Your task to perform on an android device: Is it going to rain tomorrow? Image 0: 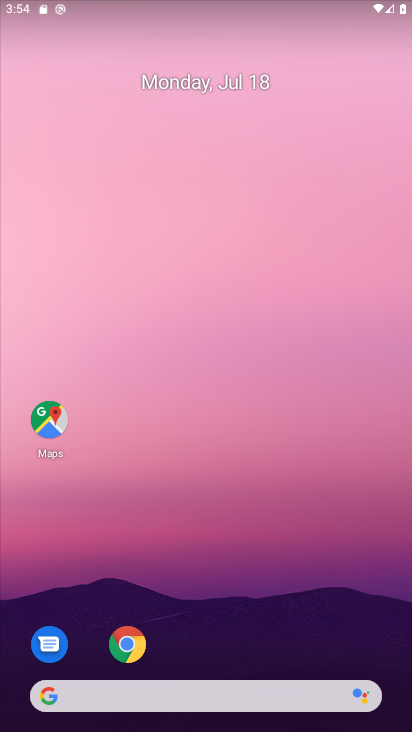
Step 0: drag from (216, 641) to (272, 230)
Your task to perform on an android device: Is it going to rain tomorrow? Image 1: 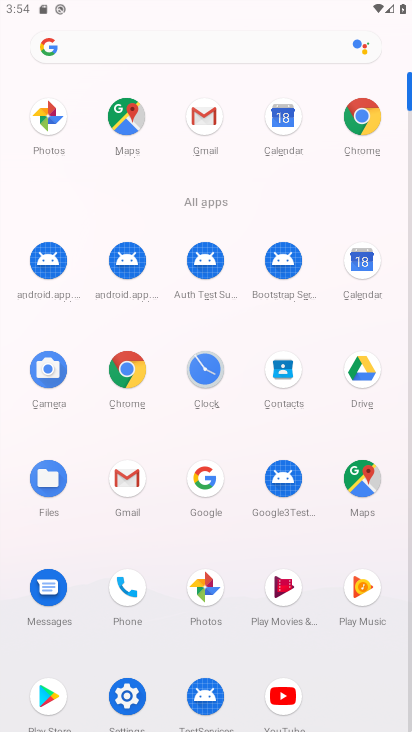
Step 1: click (189, 46)
Your task to perform on an android device: Is it going to rain tomorrow? Image 2: 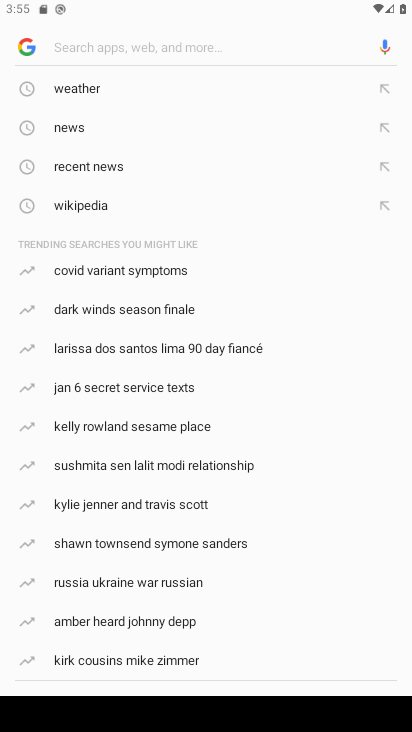
Step 2: click (155, 94)
Your task to perform on an android device: Is it going to rain tomorrow? Image 3: 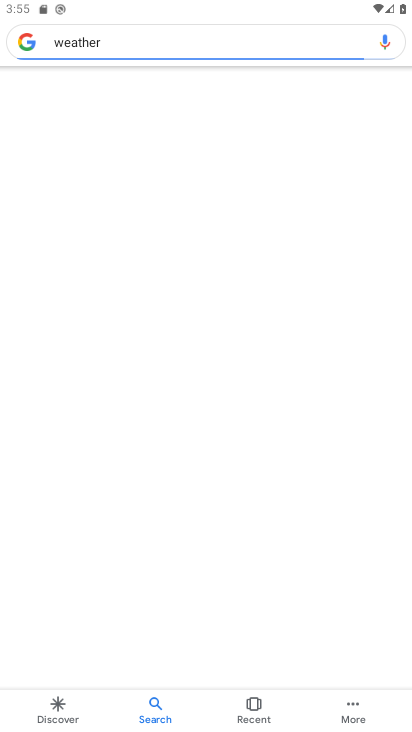
Step 3: task complete